Your task to perform on an android device: Is it going to rain this weekend? Image 0: 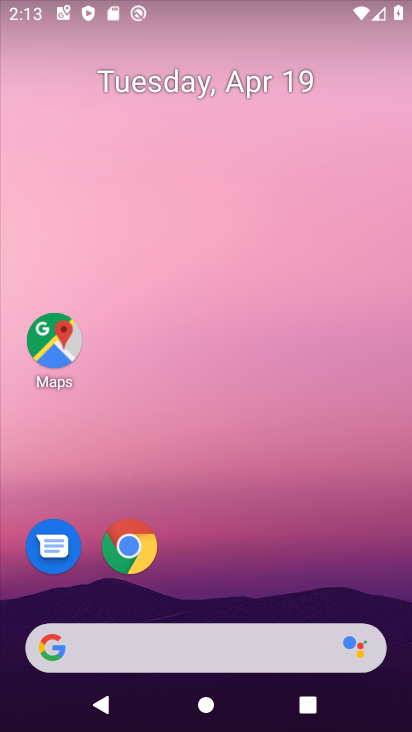
Step 0: drag from (32, 270) to (363, 231)
Your task to perform on an android device: Is it going to rain this weekend? Image 1: 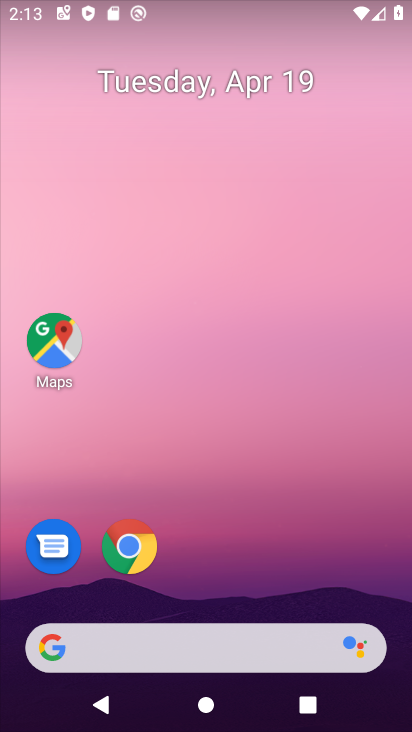
Step 1: drag from (42, 241) to (395, 99)
Your task to perform on an android device: Is it going to rain this weekend? Image 2: 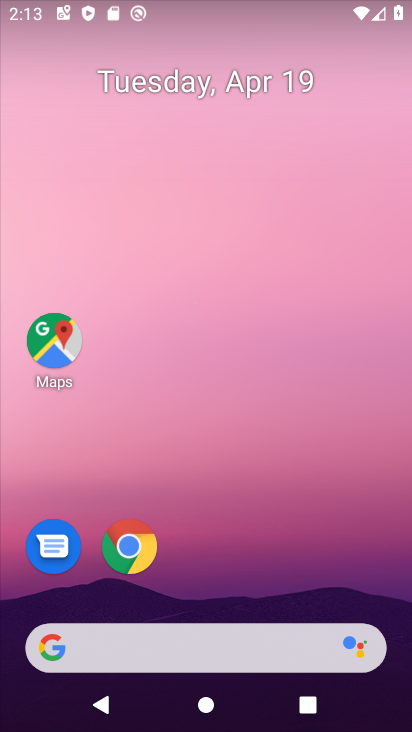
Step 2: drag from (25, 244) to (371, 175)
Your task to perform on an android device: Is it going to rain this weekend? Image 3: 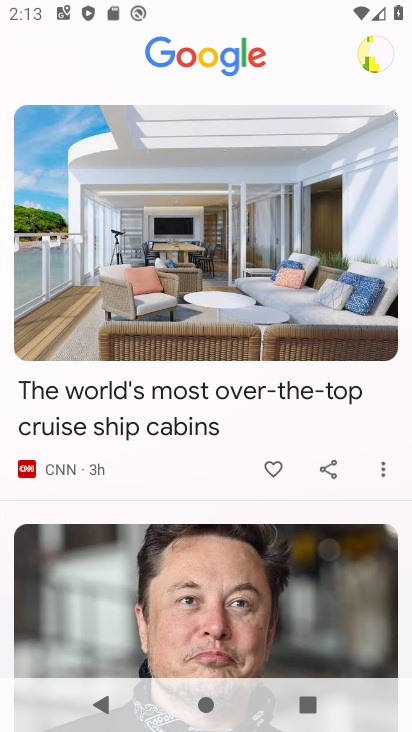
Step 3: drag from (171, 270) to (197, 371)
Your task to perform on an android device: Is it going to rain this weekend? Image 4: 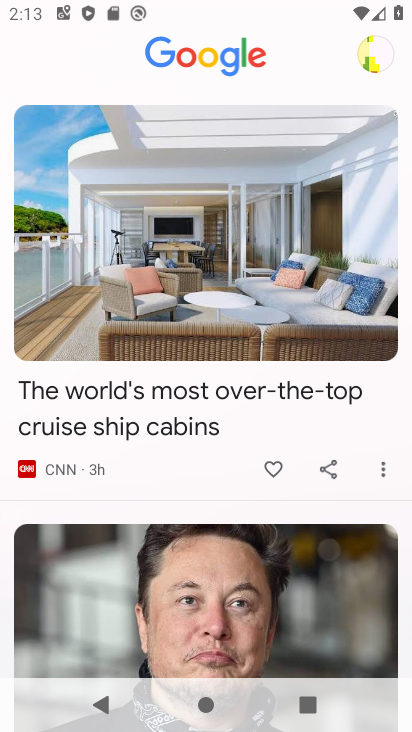
Step 4: click (205, 709)
Your task to perform on an android device: Is it going to rain this weekend? Image 5: 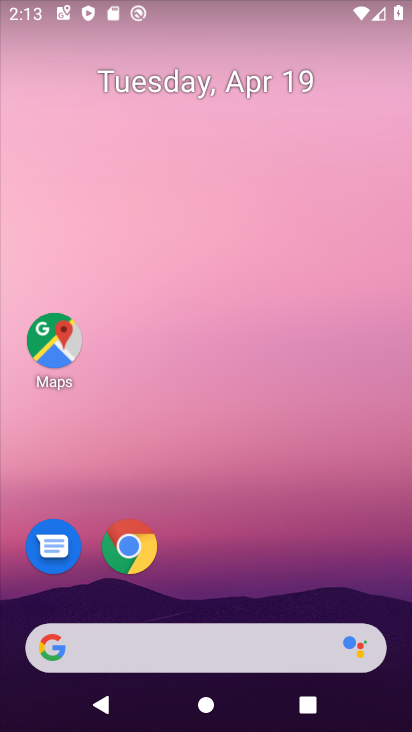
Step 5: drag from (200, 588) to (171, 160)
Your task to perform on an android device: Is it going to rain this weekend? Image 6: 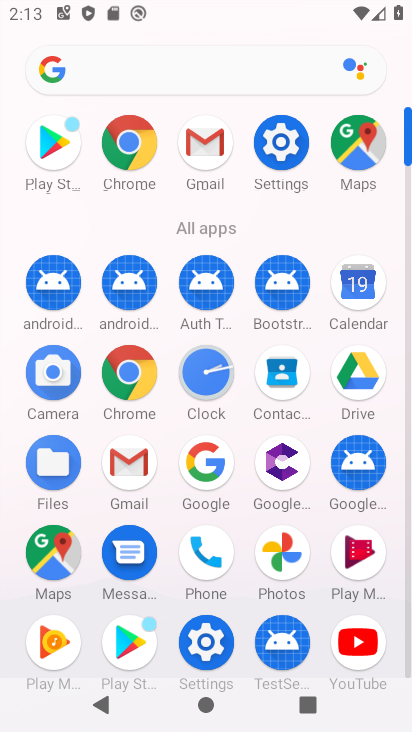
Step 6: click (210, 469)
Your task to perform on an android device: Is it going to rain this weekend? Image 7: 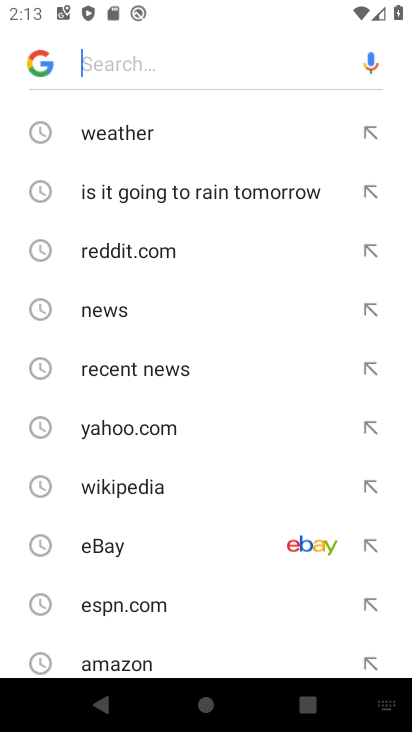
Step 7: click (157, 136)
Your task to perform on an android device: Is it going to rain this weekend? Image 8: 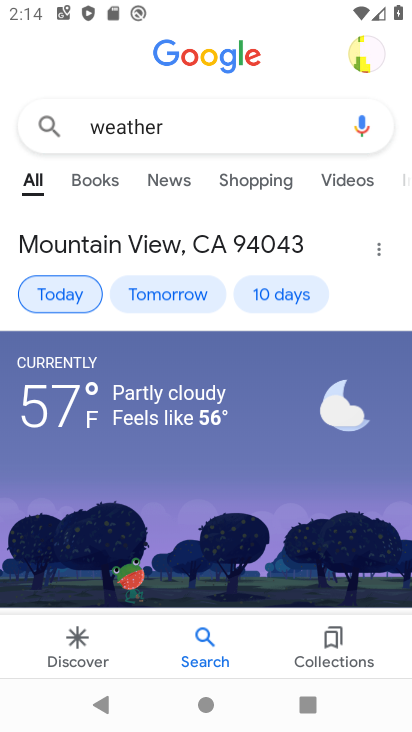
Step 8: click (253, 293)
Your task to perform on an android device: Is it going to rain this weekend? Image 9: 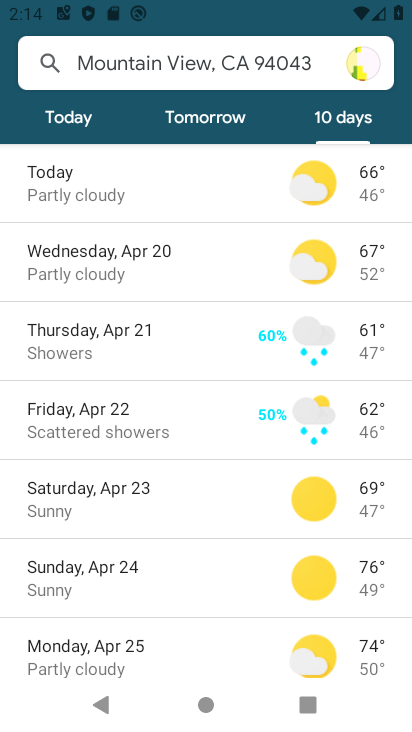
Step 9: task complete